Your task to perform on an android device: turn vacation reply on in the gmail app Image 0: 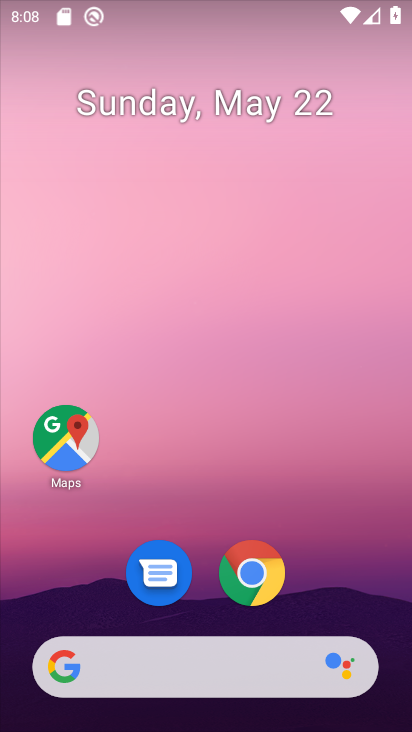
Step 0: drag from (204, 606) to (279, 131)
Your task to perform on an android device: turn vacation reply on in the gmail app Image 1: 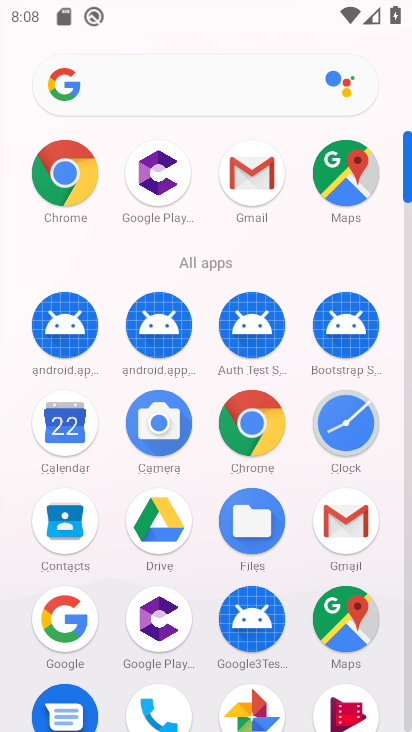
Step 1: click (352, 524)
Your task to perform on an android device: turn vacation reply on in the gmail app Image 2: 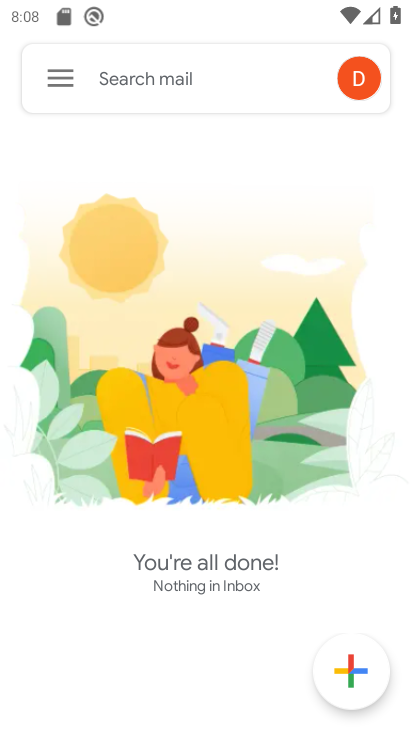
Step 2: click (61, 78)
Your task to perform on an android device: turn vacation reply on in the gmail app Image 3: 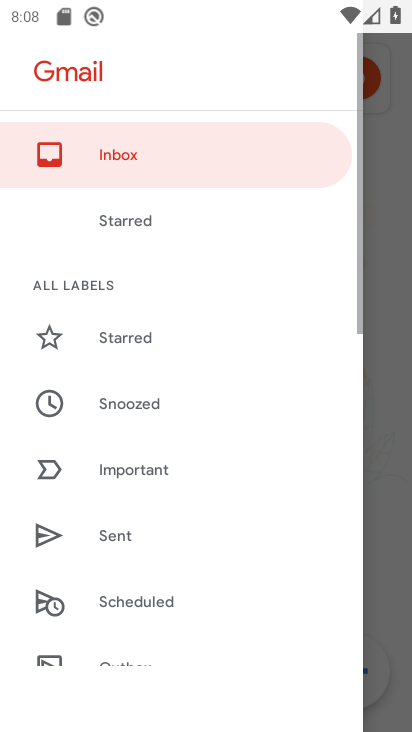
Step 3: drag from (144, 617) to (234, 73)
Your task to perform on an android device: turn vacation reply on in the gmail app Image 4: 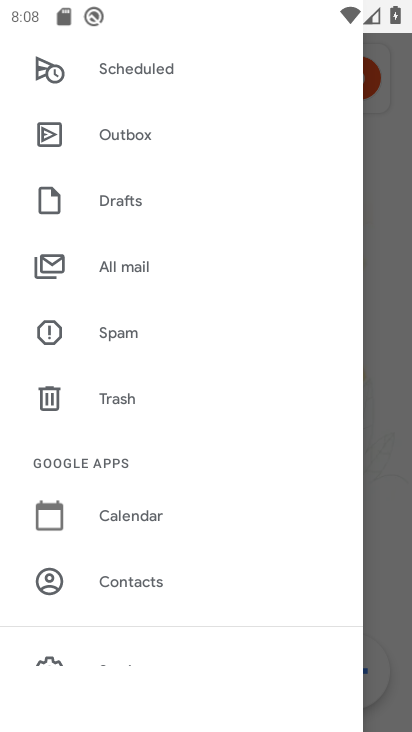
Step 4: drag from (145, 562) to (228, 112)
Your task to perform on an android device: turn vacation reply on in the gmail app Image 5: 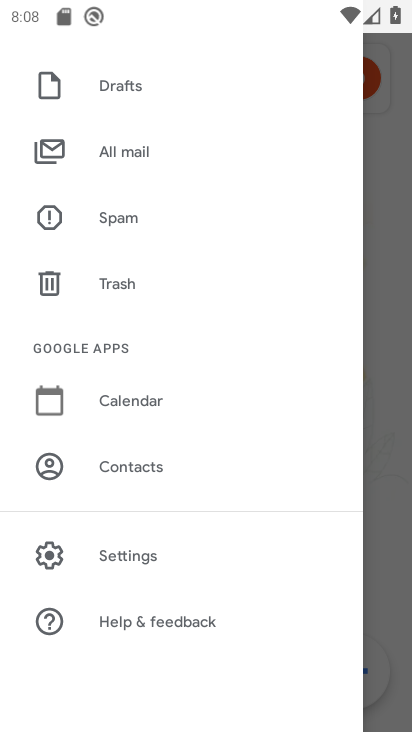
Step 5: click (123, 546)
Your task to perform on an android device: turn vacation reply on in the gmail app Image 6: 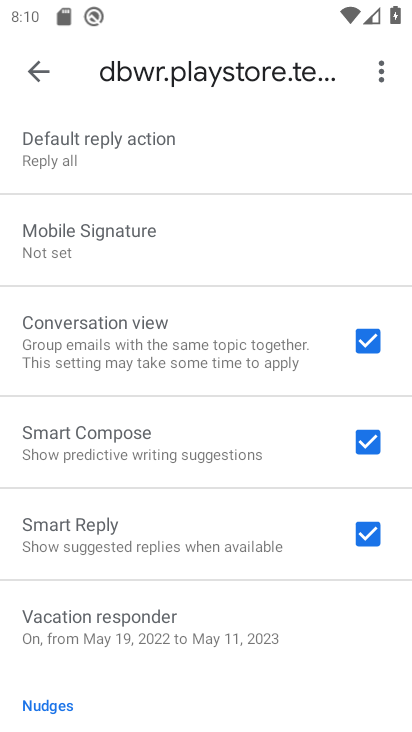
Step 6: drag from (120, 554) to (247, 229)
Your task to perform on an android device: turn vacation reply on in the gmail app Image 7: 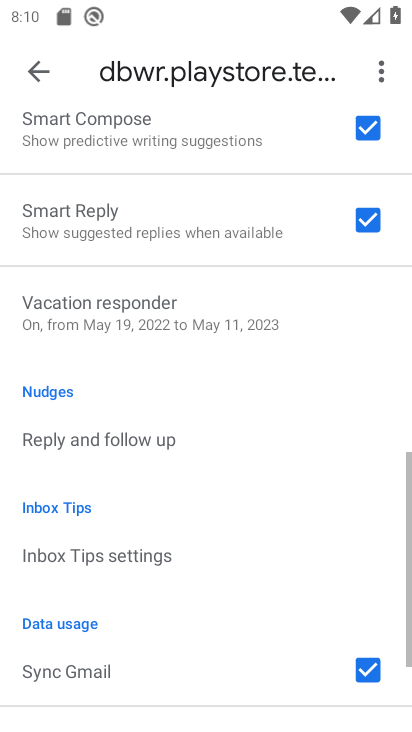
Step 7: click (156, 316)
Your task to perform on an android device: turn vacation reply on in the gmail app Image 8: 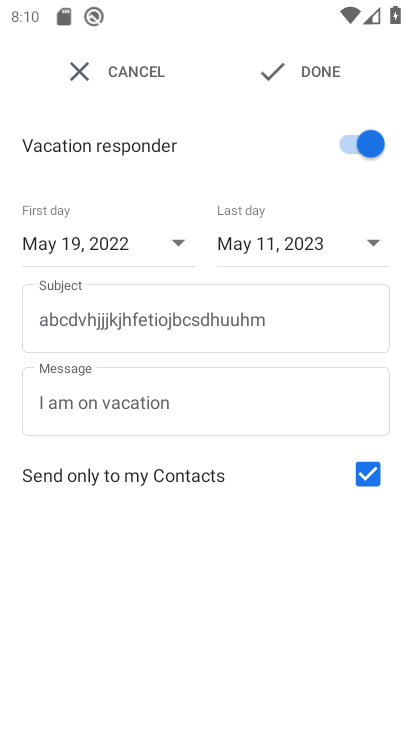
Step 8: click (293, 79)
Your task to perform on an android device: turn vacation reply on in the gmail app Image 9: 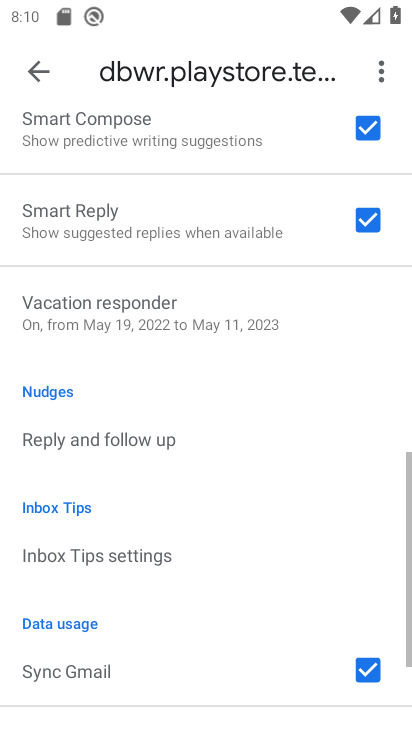
Step 9: task complete